Your task to perform on an android device: open sync settings in chrome Image 0: 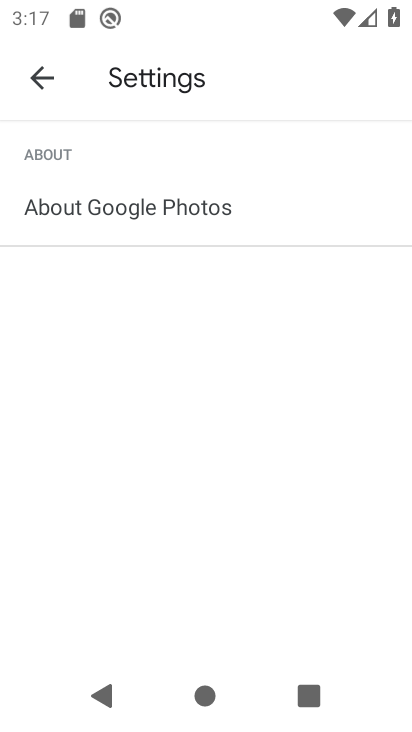
Step 0: press home button
Your task to perform on an android device: open sync settings in chrome Image 1: 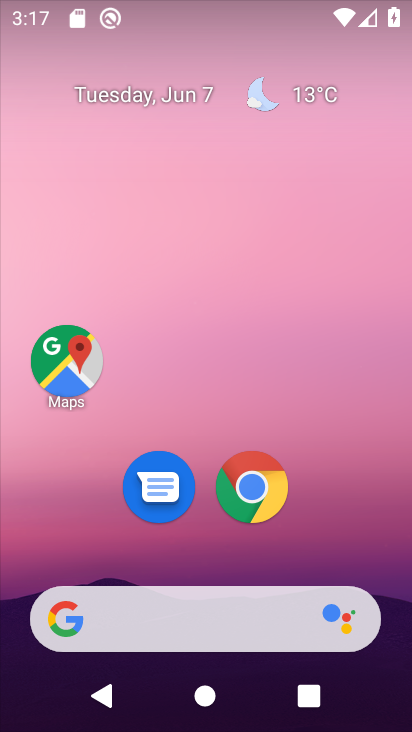
Step 1: drag from (307, 554) to (251, 67)
Your task to perform on an android device: open sync settings in chrome Image 2: 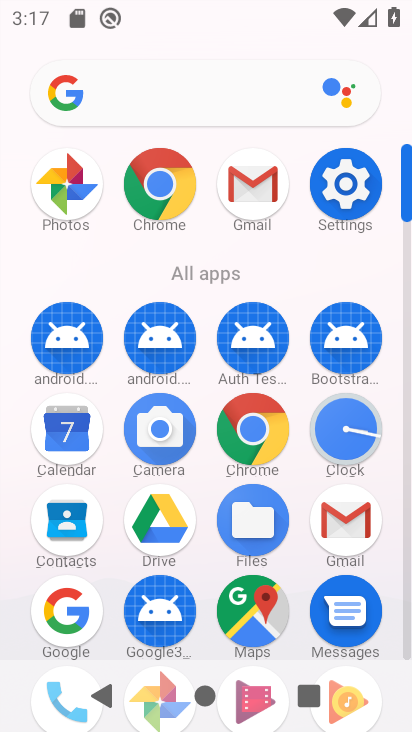
Step 2: click (156, 182)
Your task to perform on an android device: open sync settings in chrome Image 3: 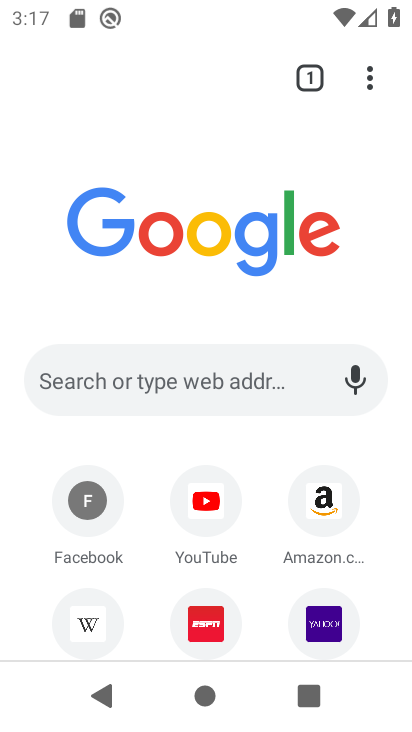
Step 3: click (348, 72)
Your task to perform on an android device: open sync settings in chrome Image 4: 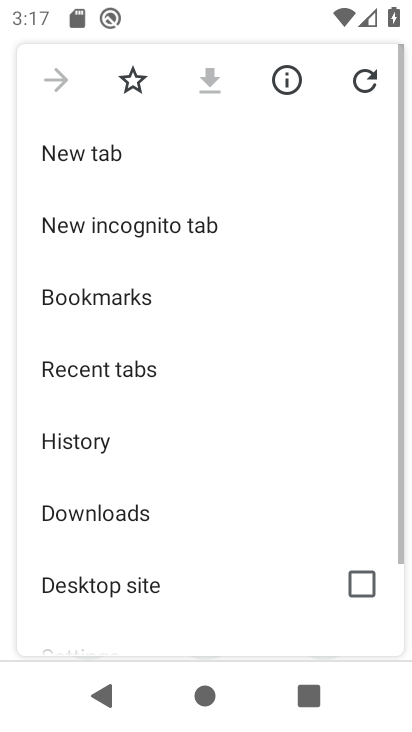
Step 4: drag from (264, 533) to (270, 106)
Your task to perform on an android device: open sync settings in chrome Image 5: 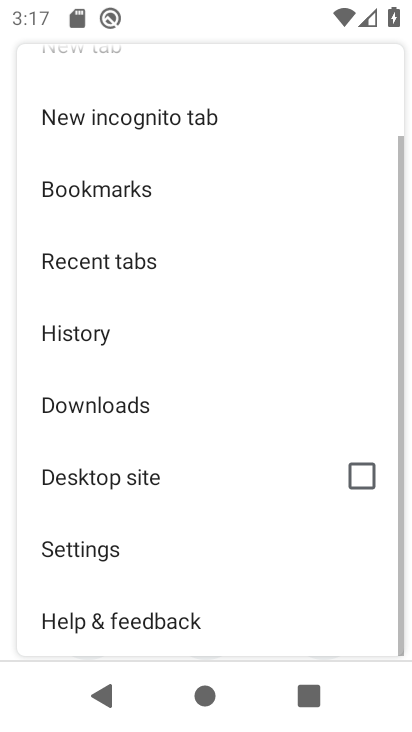
Step 5: click (189, 562)
Your task to perform on an android device: open sync settings in chrome Image 6: 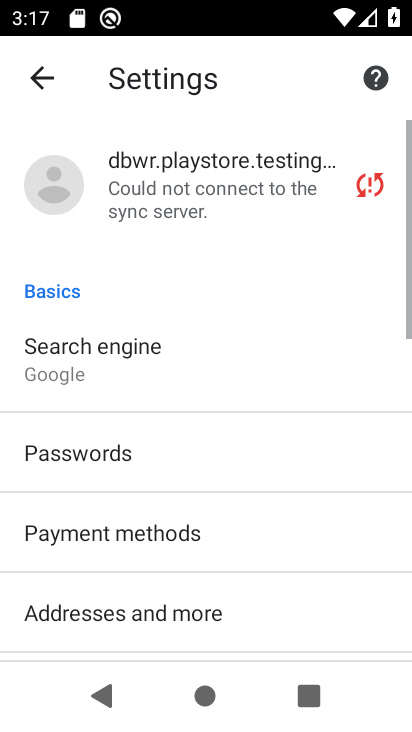
Step 6: drag from (252, 480) to (268, 78)
Your task to perform on an android device: open sync settings in chrome Image 7: 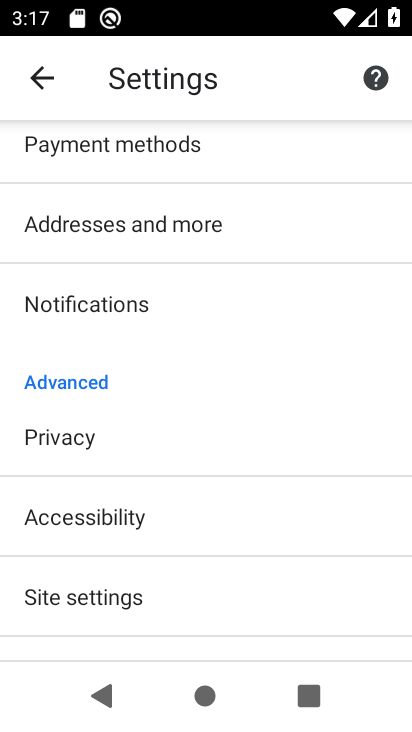
Step 7: click (109, 595)
Your task to perform on an android device: open sync settings in chrome Image 8: 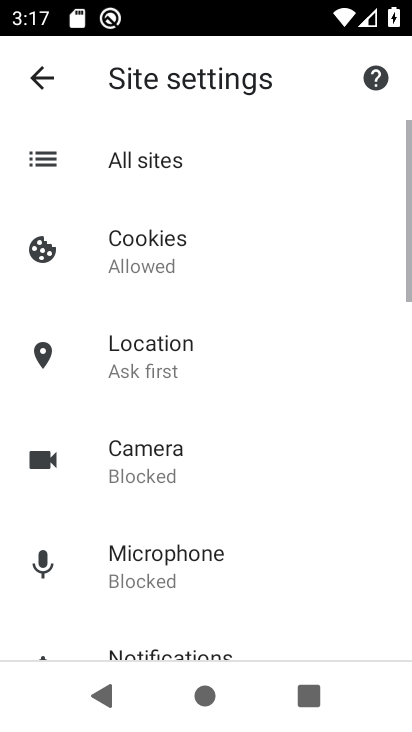
Step 8: drag from (264, 552) to (226, 195)
Your task to perform on an android device: open sync settings in chrome Image 9: 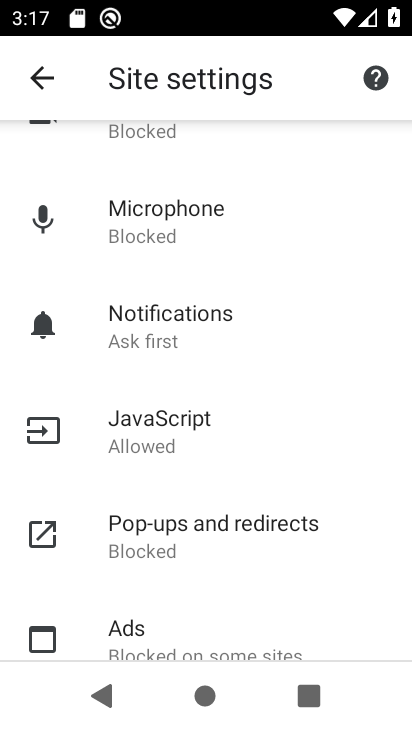
Step 9: drag from (244, 627) to (185, 369)
Your task to perform on an android device: open sync settings in chrome Image 10: 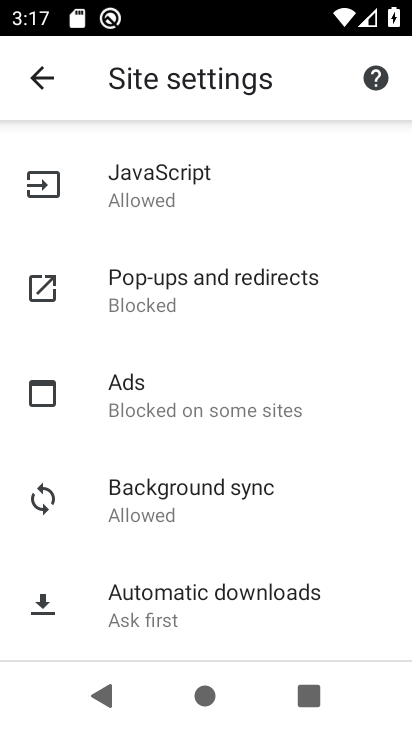
Step 10: click (202, 493)
Your task to perform on an android device: open sync settings in chrome Image 11: 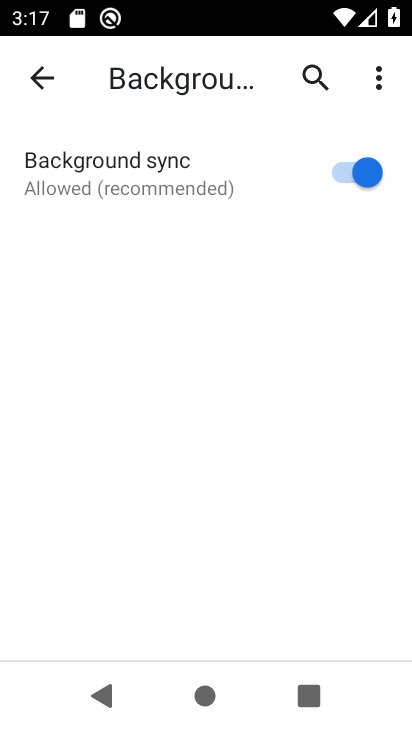
Step 11: task complete